Your task to perform on an android device: Go to network settings Image 0: 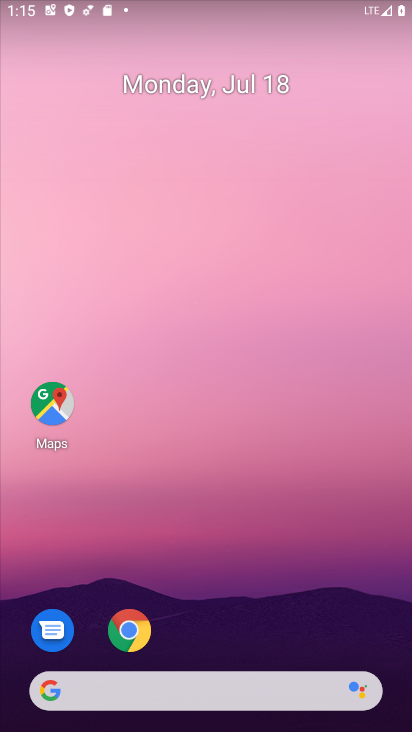
Step 0: drag from (291, 622) to (272, 0)
Your task to perform on an android device: Go to network settings Image 1: 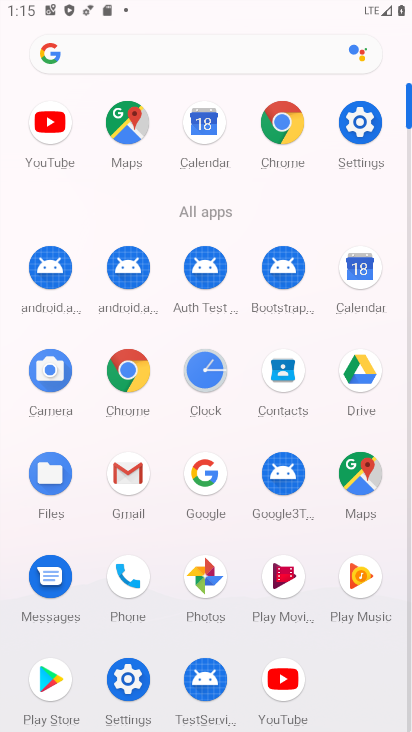
Step 1: click (373, 130)
Your task to perform on an android device: Go to network settings Image 2: 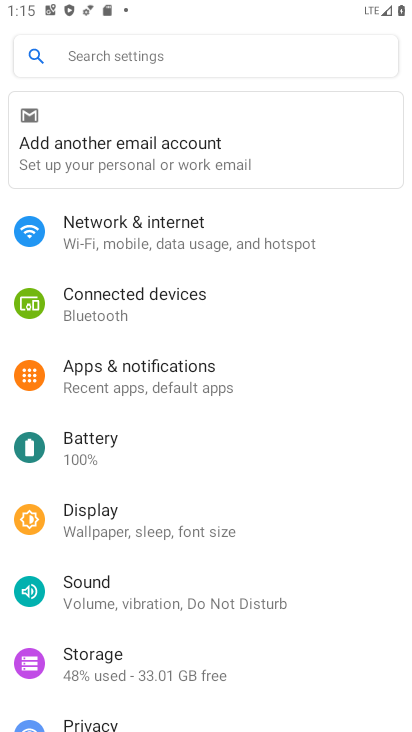
Step 2: click (227, 231)
Your task to perform on an android device: Go to network settings Image 3: 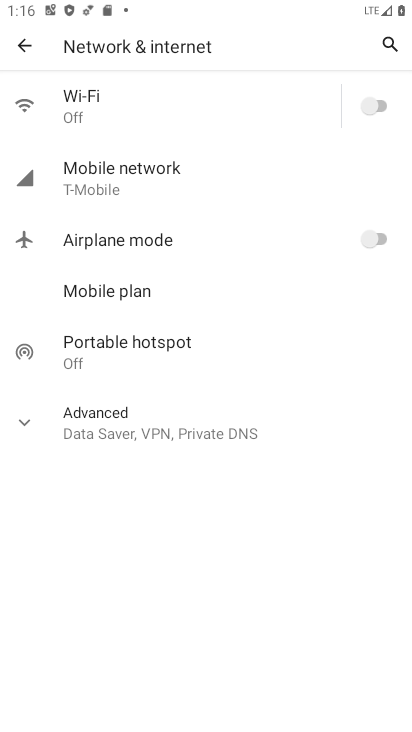
Step 3: task complete